Your task to perform on an android device: Search for "apple airpods" on amazon.com, select the first entry, add it to the cart, then select checkout. Image 0: 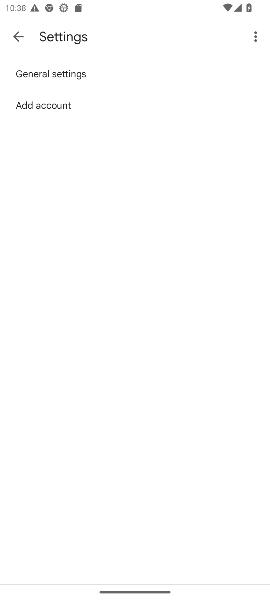
Step 0: press home button
Your task to perform on an android device: Search for "apple airpods" on amazon.com, select the first entry, add it to the cart, then select checkout. Image 1: 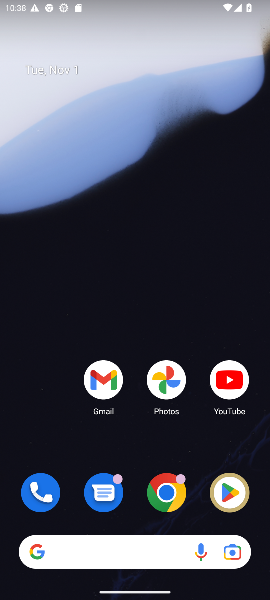
Step 1: press home button
Your task to perform on an android device: Search for "apple airpods" on amazon.com, select the first entry, add it to the cart, then select checkout. Image 2: 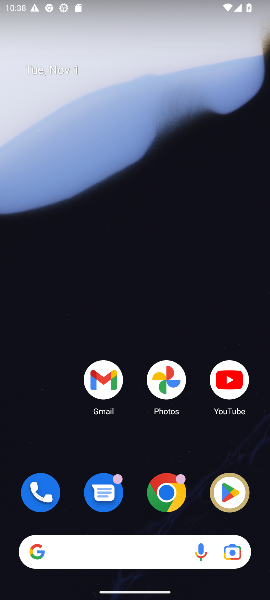
Step 2: click (162, 496)
Your task to perform on an android device: Search for "apple airpods" on amazon.com, select the first entry, add it to the cart, then select checkout. Image 3: 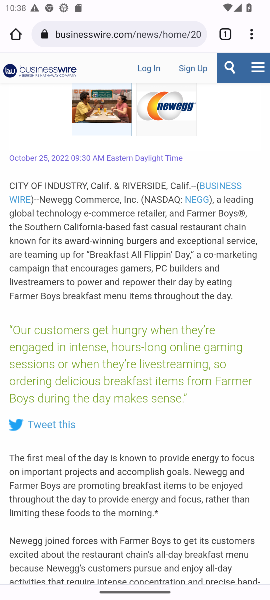
Step 3: click (135, 30)
Your task to perform on an android device: Search for "apple airpods" on amazon.com, select the first entry, add it to the cart, then select checkout. Image 4: 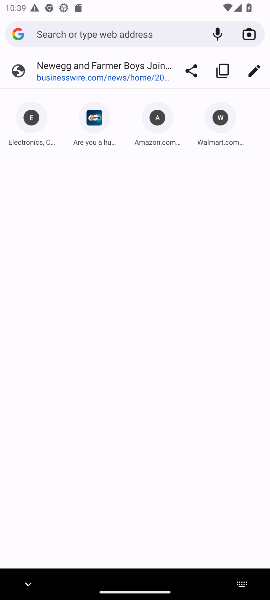
Step 4: type "amazon.com"
Your task to perform on an android device: Search for "apple airpods" on amazon.com, select the first entry, add it to the cart, then select checkout. Image 5: 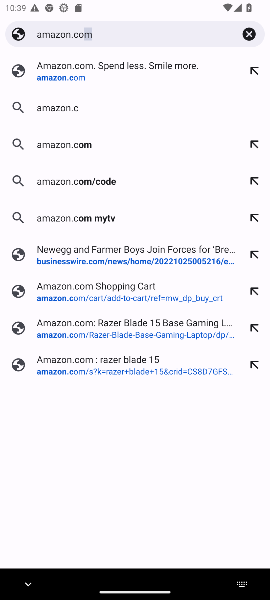
Step 5: type ""
Your task to perform on an android device: Search for "apple airpods" on amazon.com, select the first entry, add it to the cart, then select checkout. Image 6: 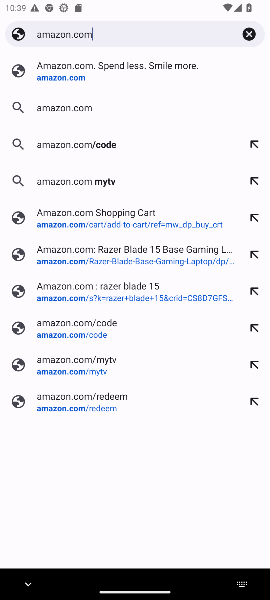
Step 6: click (52, 68)
Your task to perform on an android device: Search for "apple airpods" on amazon.com, select the first entry, add it to the cart, then select checkout. Image 7: 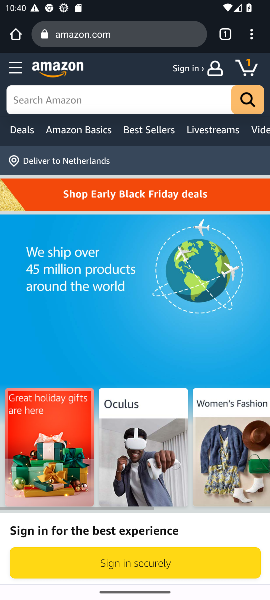
Step 7: click (68, 94)
Your task to perform on an android device: Search for "apple airpods" on amazon.com, select the first entry, add it to the cart, then select checkout. Image 8: 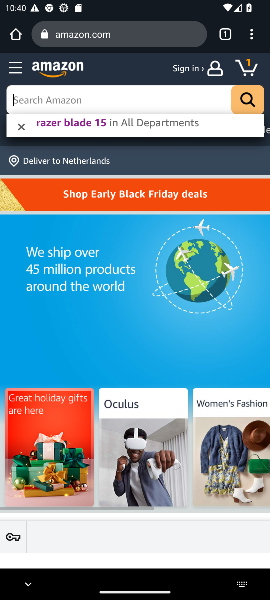
Step 8: type "apple airpods"
Your task to perform on an android device: Search for "apple airpods" on amazon.com, select the first entry, add it to the cart, then select checkout. Image 9: 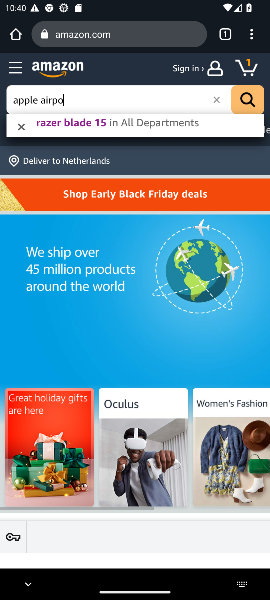
Step 9: type ""
Your task to perform on an android device: Search for "apple airpods" on amazon.com, select the first entry, add it to the cart, then select checkout. Image 10: 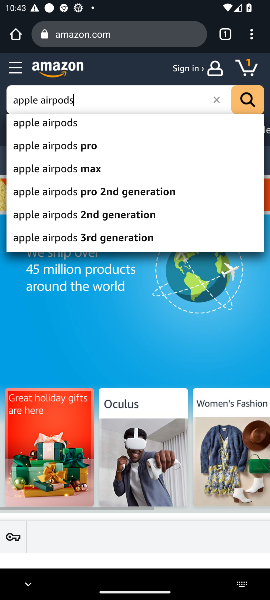
Step 10: click (67, 122)
Your task to perform on an android device: Search for "apple airpods" on amazon.com, select the first entry, add it to the cart, then select checkout. Image 11: 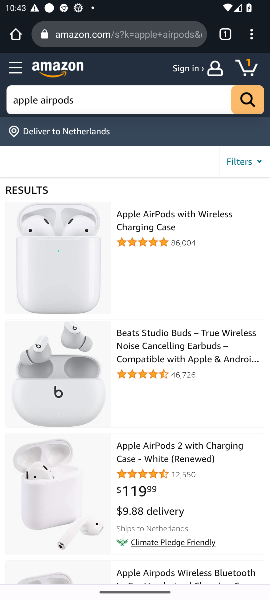
Step 11: click (160, 445)
Your task to perform on an android device: Search for "apple airpods" on amazon.com, select the first entry, add it to the cart, then select checkout. Image 12: 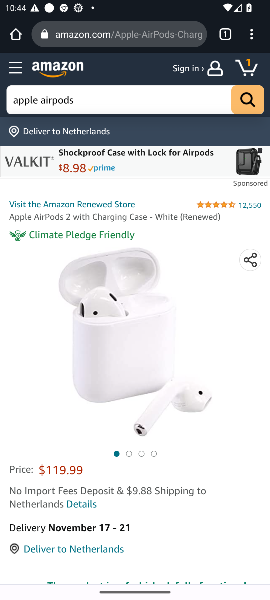
Step 12: drag from (74, 469) to (110, 218)
Your task to perform on an android device: Search for "apple airpods" on amazon.com, select the first entry, add it to the cart, then select checkout. Image 13: 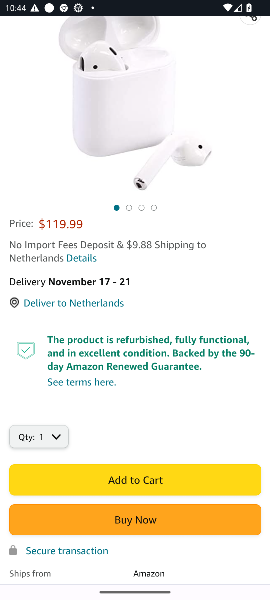
Step 13: click (111, 482)
Your task to perform on an android device: Search for "apple airpods" on amazon.com, select the first entry, add it to the cart, then select checkout. Image 14: 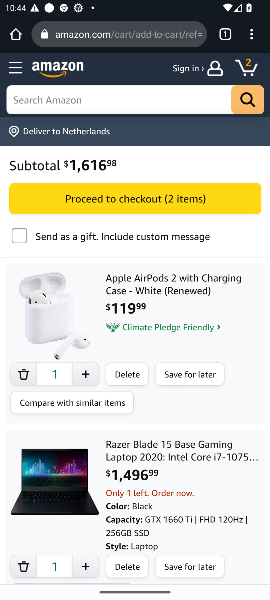
Step 14: drag from (175, 454) to (185, 350)
Your task to perform on an android device: Search for "apple airpods" on amazon.com, select the first entry, add it to the cart, then select checkout. Image 15: 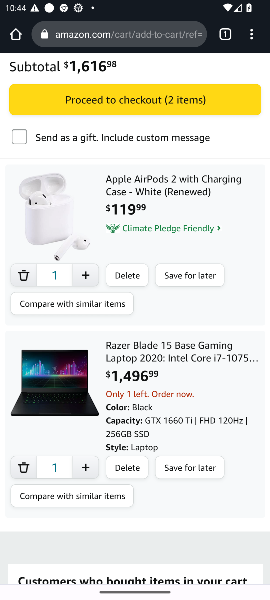
Step 15: click (138, 97)
Your task to perform on an android device: Search for "apple airpods" on amazon.com, select the first entry, add it to the cart, then select checkout. Image 16: 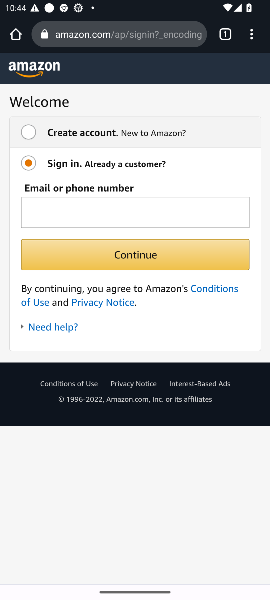
Step 16: task complete